Your task to perform on an android device: Open Amazon Image 0: 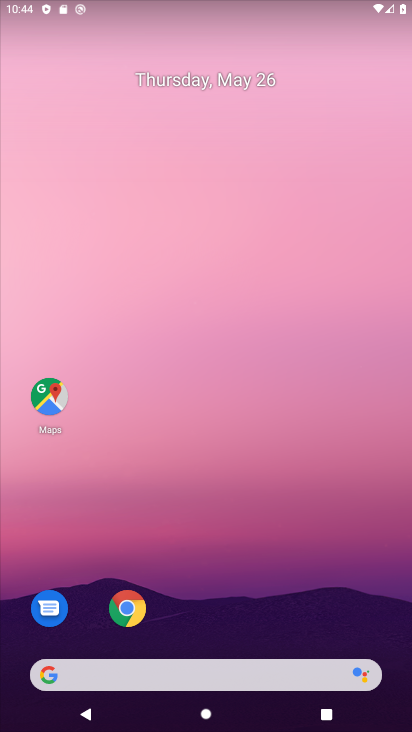
Step 0: click (128, 608)
Your task to perform on an android device: Open Amazon Image 1: 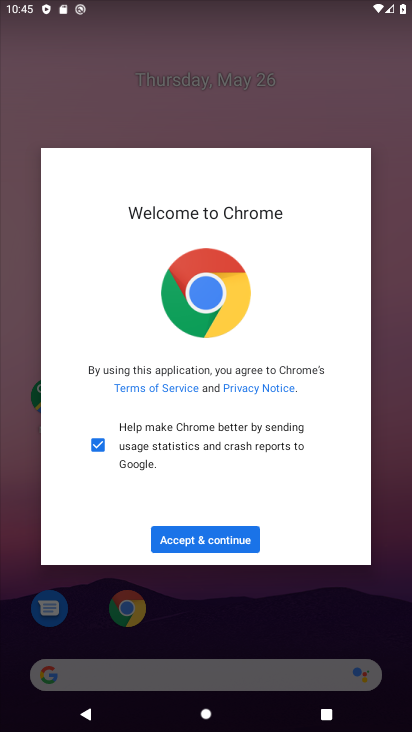
Step 1: click (208, 531)
Your task to perform on an android device: Open Amazon Image 2: 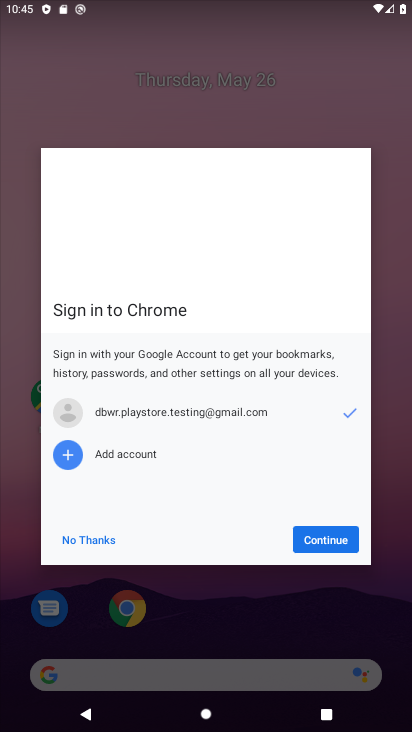
Step 2: click (344, 541)
Your task to perform on an android device: Open Amazon Image 3: 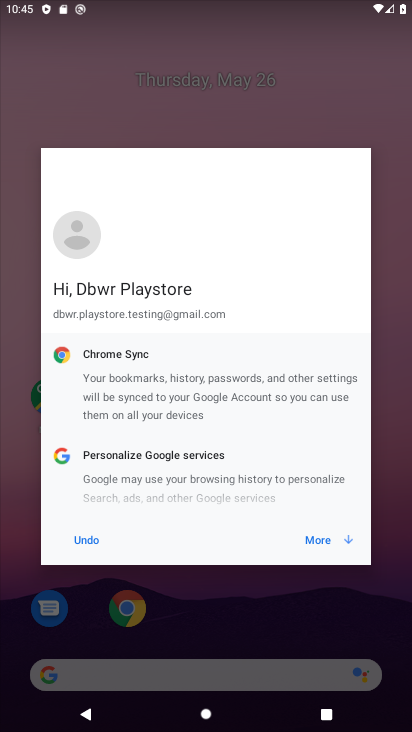
Step 3: click (327, 542)
Your task to perform on an android device: Open Amazon Image 4: 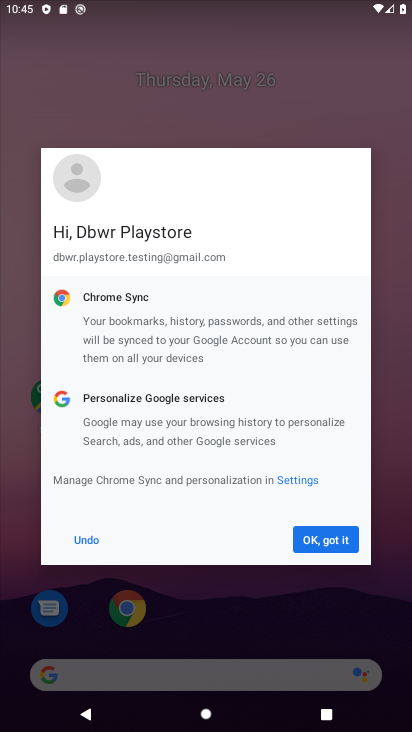
Step 4: click (327, 542)
Your task to perform on an android device: Open Amazon Image 5: 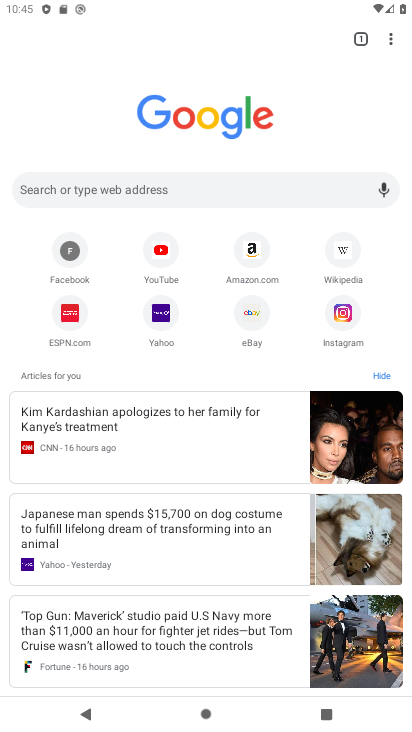
Step 5: click (253, 255)
Your task to perform on an android device: Open Amazon Image 6: 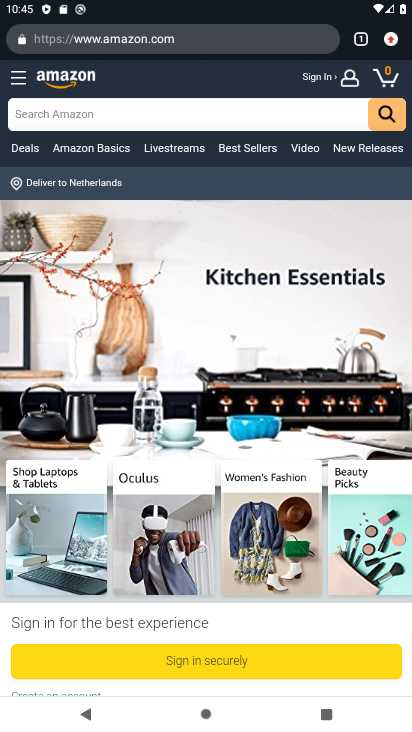
Step 6: task complete